Your task to perform on an android device: Search for the best selling coffee table on Crate & Barrel Image 0: 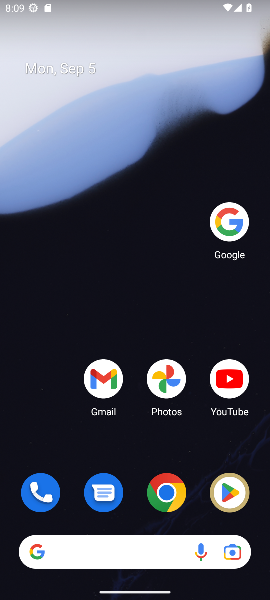
Step 0: click (217, 215)
Your task to perform on an android device: Search for the best selling coffee table on Crate & Barrel Image 1: 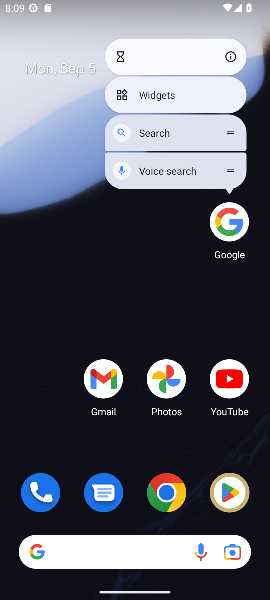
Step 1: click (234, 216)
Your task to perform on an android device: Search for the best selling coffee table on Crate & Barrel Image 2: 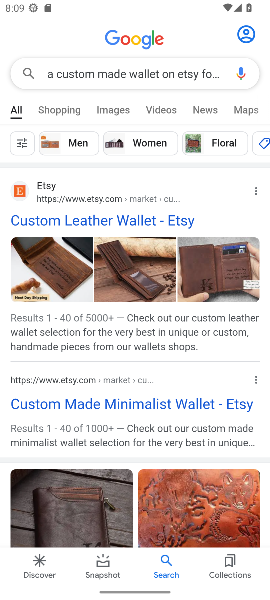
Step 2: click (158, 63)
Your task to perform on an android device: Search for the best selling coffee table on Crate & Barrel Image 3: 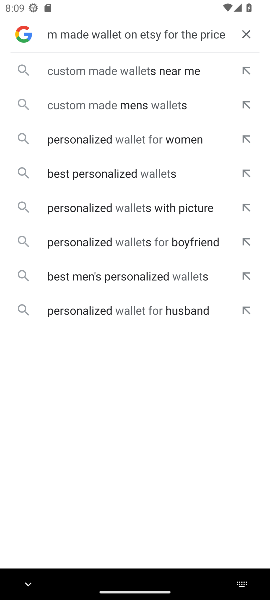
Step 3: click (244, 30)
Your task to perform on an android device: Search for the best selling coffee table on Crate & Barrel Image 4: 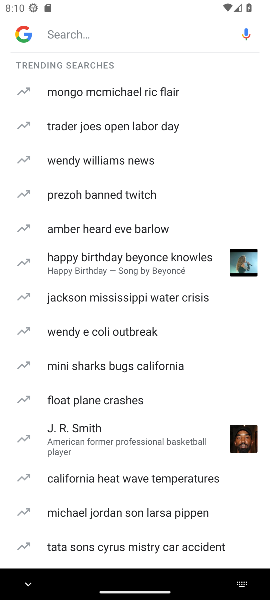
Step 4: click (68, 22)
Your task to perform on an android device: Search for the best selling coffee table on Crate & Barrel Image 5: 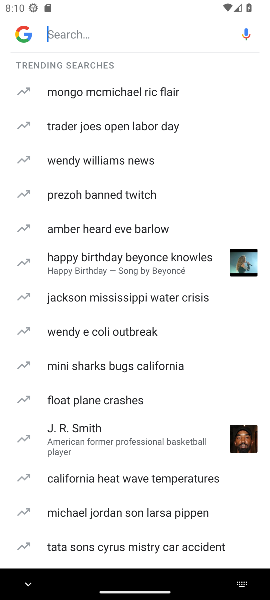
Step 5: type " the best selling coffee table on Crate & Barrel "
Your task to perform on an android device: Search for the best selling coffee table on Crate & Barrel Image 6: 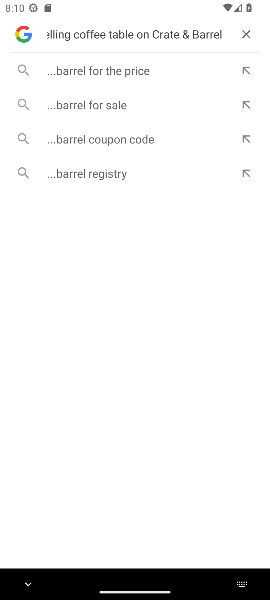
Step 6: click (113, 62)
Your task to perform on an android device: Search for the best selling coffee table on Crate & Barrel Image 7: 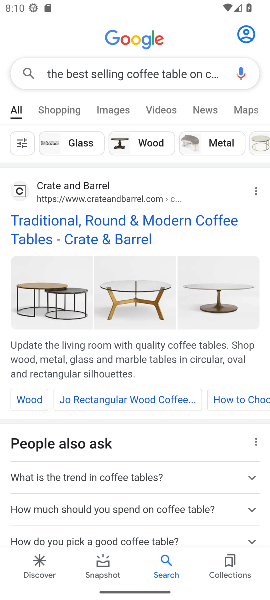
Step 7: task complete